Your task to perform on an android device: Go to notification settings Image 0: 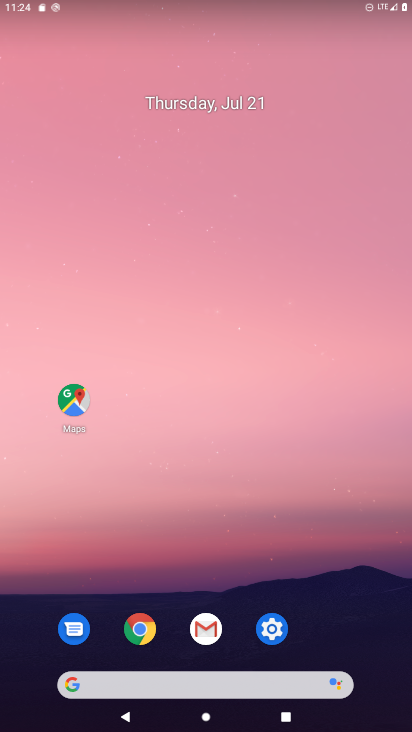
Step 0: click (270, 624)
Your task to perform on an android device: Go to notification settings Image 1: 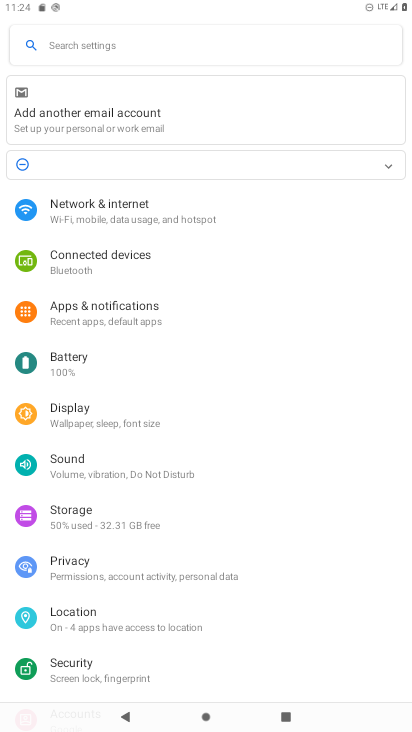
Step 1: click (92, 50)
Your task to perform on an android device: Go to notification settings Image 2: 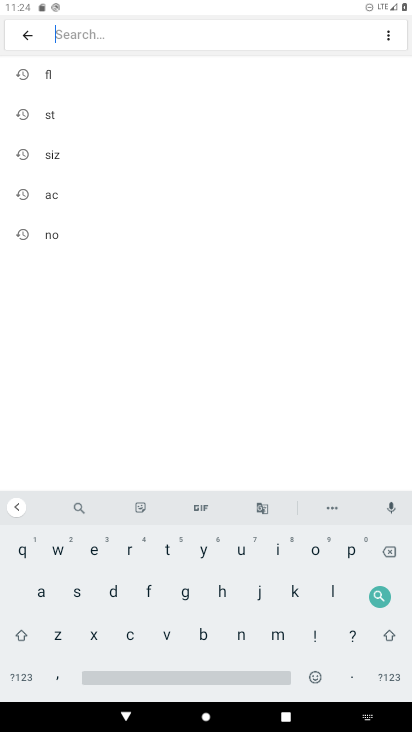
Step 2: click (55, 235)
Your task to perform on an android device: Go to notification settings Image 3: 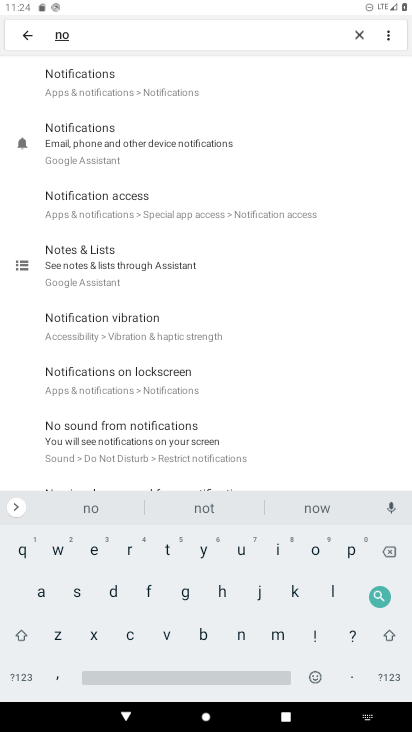
Step 3: click (75, 81)
Your task to perform on an android device: Go to notification settings Image 4: 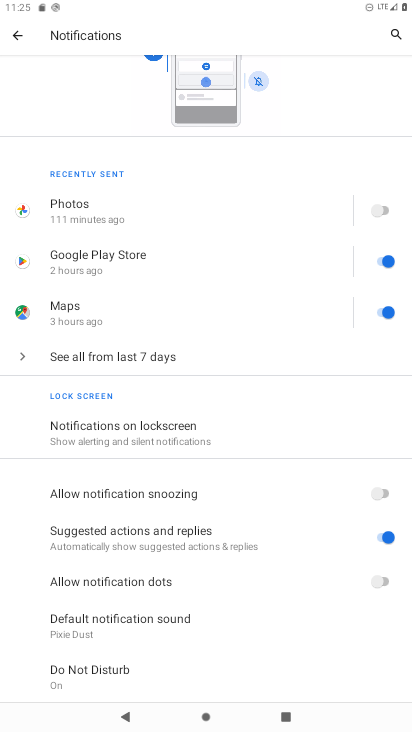
Step 4: click (103, 424)
Your task to perform on an android device: Go to notification settings Image 5: 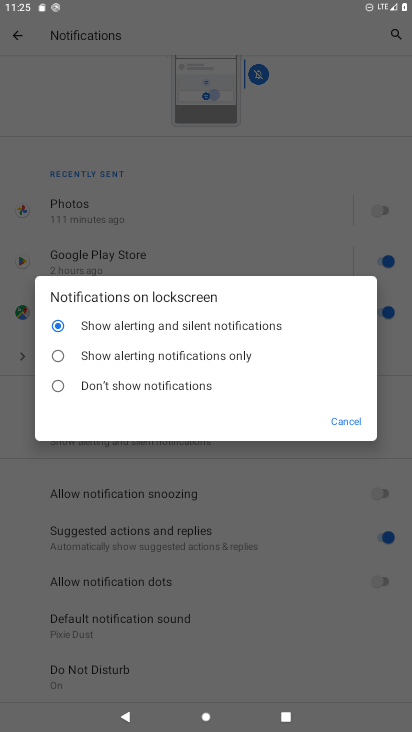
Step 5: task complete